Your task to perform on an android device: What's the weather today? Image 0: 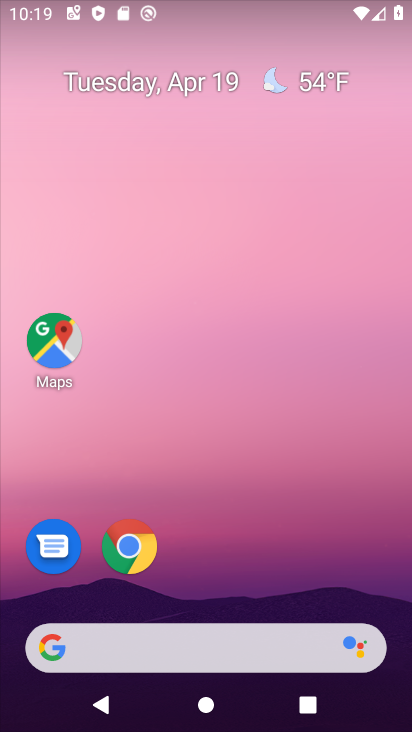
Step 0: click (314, 631)
Your task to perform on an android device: What's the weather today? Image 1: 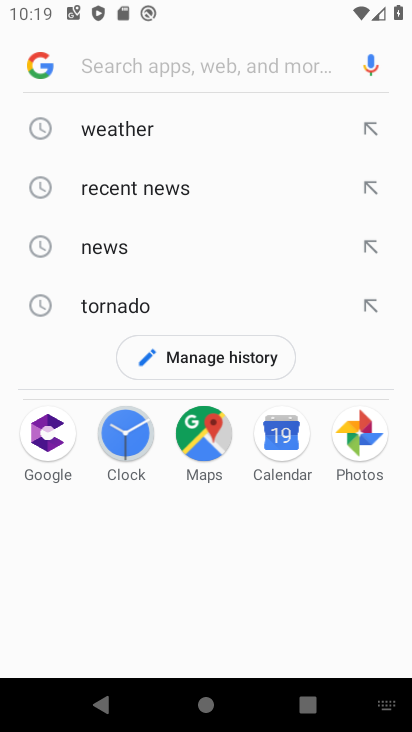
Step 1: type "What's the weather today?"
Your task to perform on an android device: What's the weather today? Image 2: 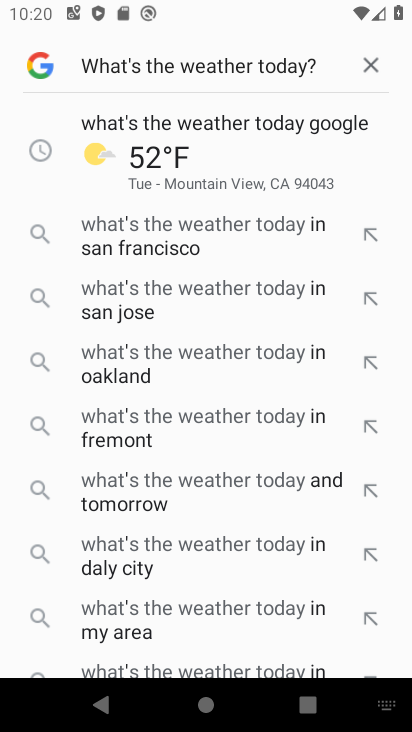
Step 2: click (263, 180)
Your task to perform on an android device: What's the weather today? Image 3: 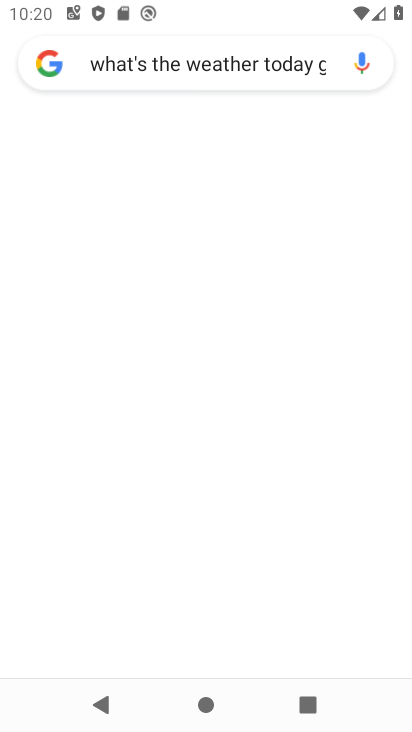
Step 3: click (34, 153)
Your task to perform on an android device: What's the weather today? Image 4: 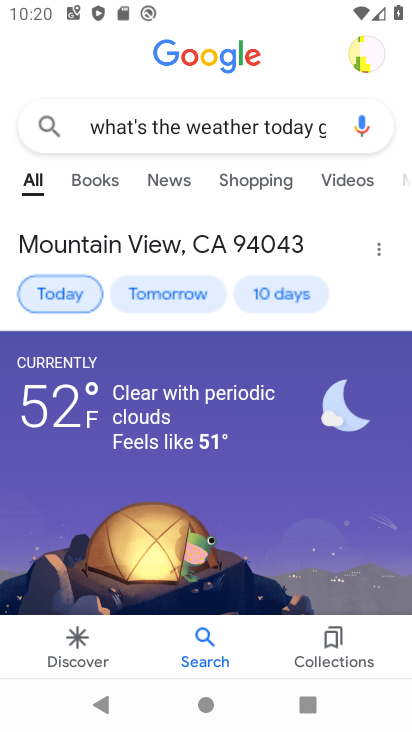
Step 4: task complete